Your task to perform on an android device: Open eBay Image 0: 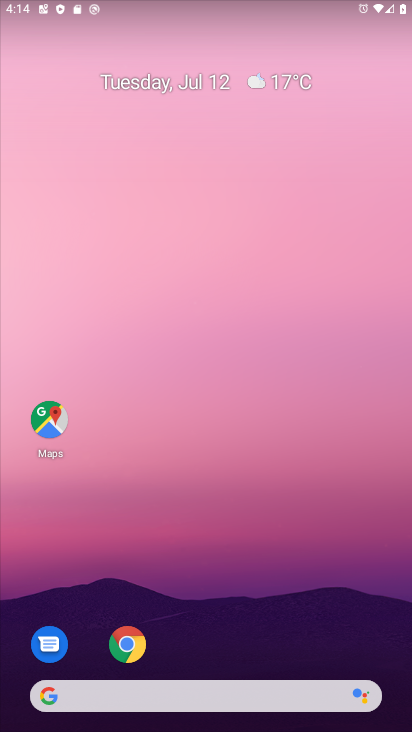
Step 0: click (127, 649)
Your task to perform on an android device: Open eBay Image 1: 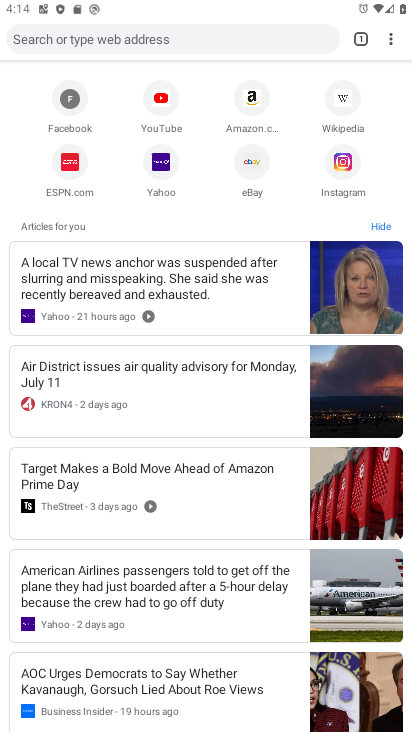
Step 1: click (245, 158)
Your task to perform on an android device: Open eBay Image 2: 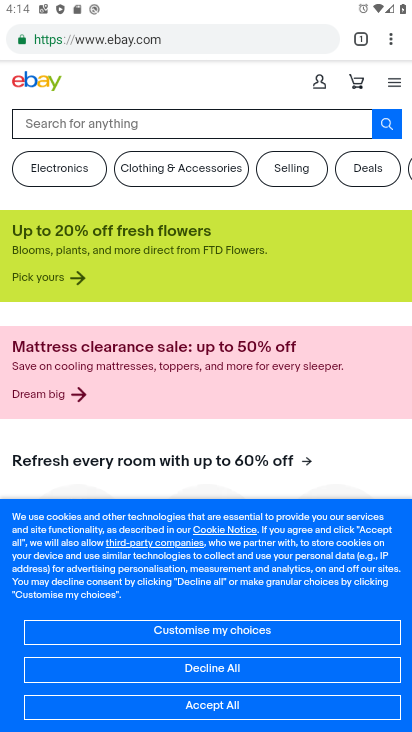
Step 2: task complete